Your task to perform on an android device: turn off sleep mode Image 0: 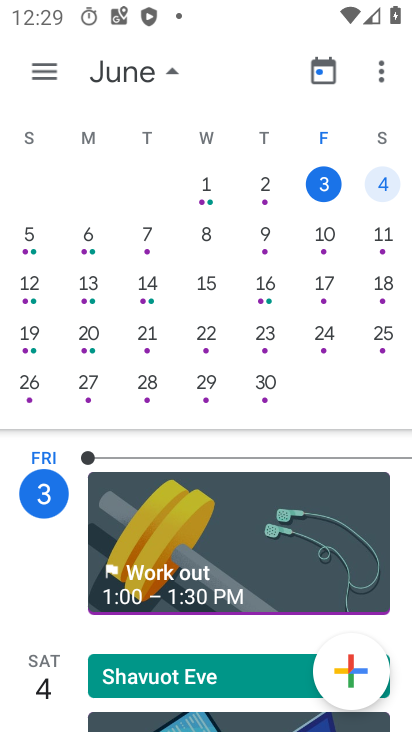
Step 0: press home button
Your task to perform on an android device: turn off sleep mode Image 1: 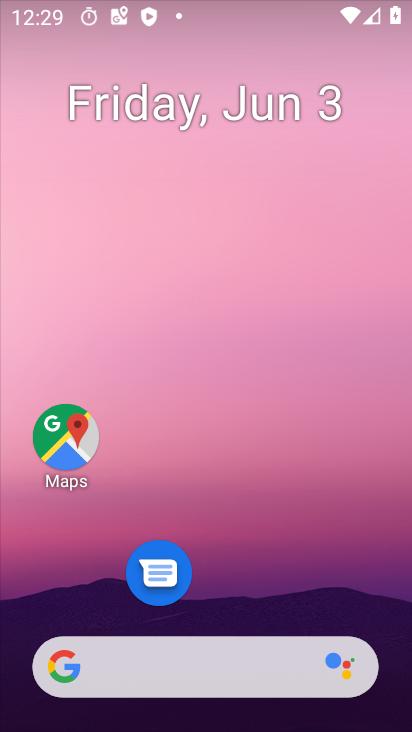
Step 1: drag from (288, 663) to (250, 14)
Your task to perform on an android device: turn off sleep mode Image 2: 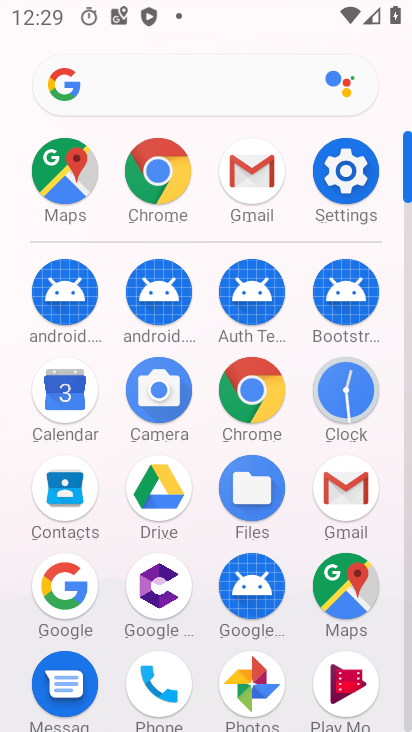
Step 2: click (357, 169)
Your task to perform on an android device: turn off sleep mode Image 3: 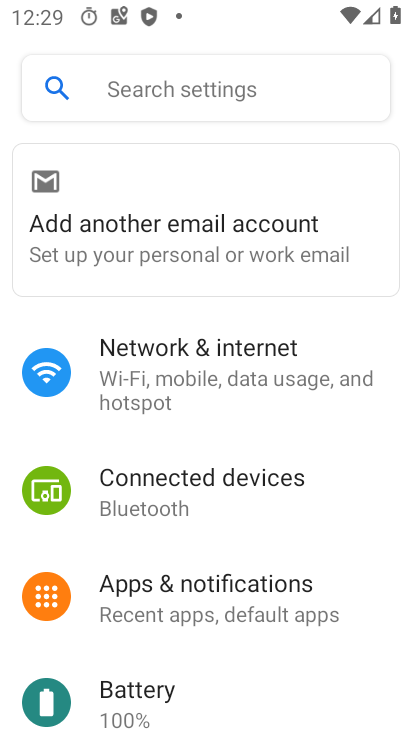
Step 3: drag from (310, 652) to (263, 298)
Your task to perform on an android device: turn off sleep mode Image 4: 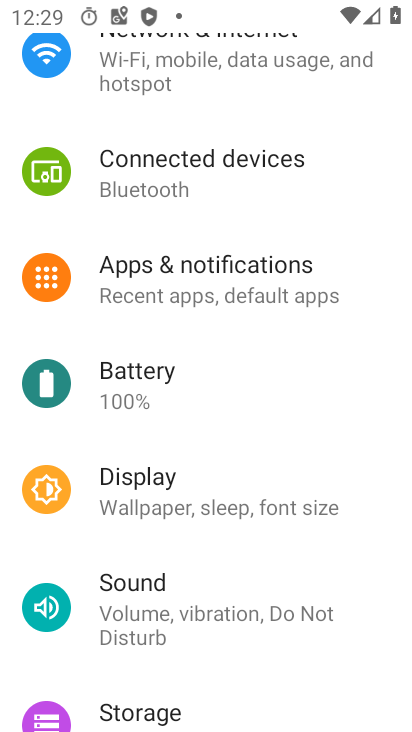
Step 4: drag from (290, 328) to (293, 131)
Your task to perform on an android device: turn off sleep mode Image 5: 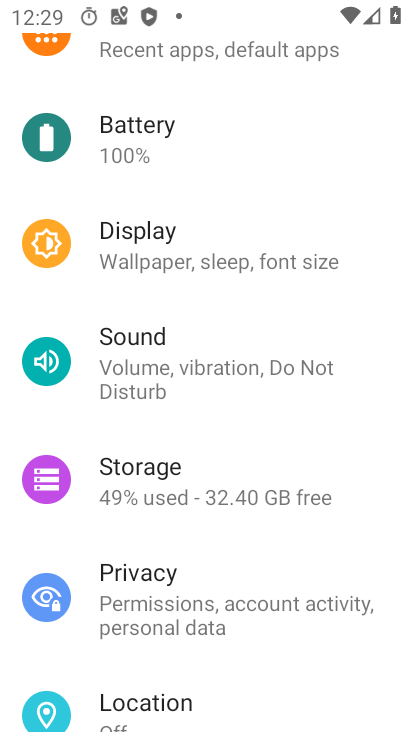
Step 5: click (247, 258)
Your task to perform on an android device: turn off sleep mode Image 6: 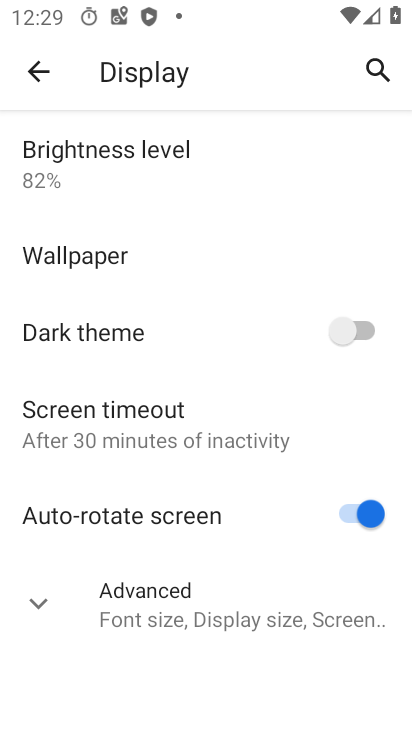
Step 6: task complete